Your task to perform on an android device: uninstall "Truecaller" Image 0: 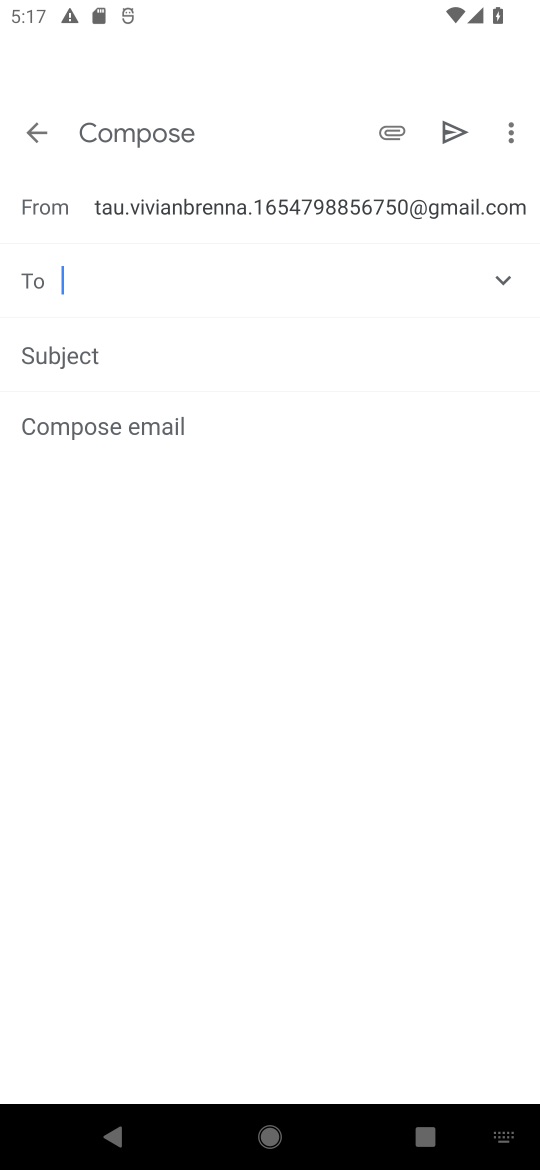
Step 0: press home button
Your task to perform on an android device: uninstall "Truecaller" Image 1: 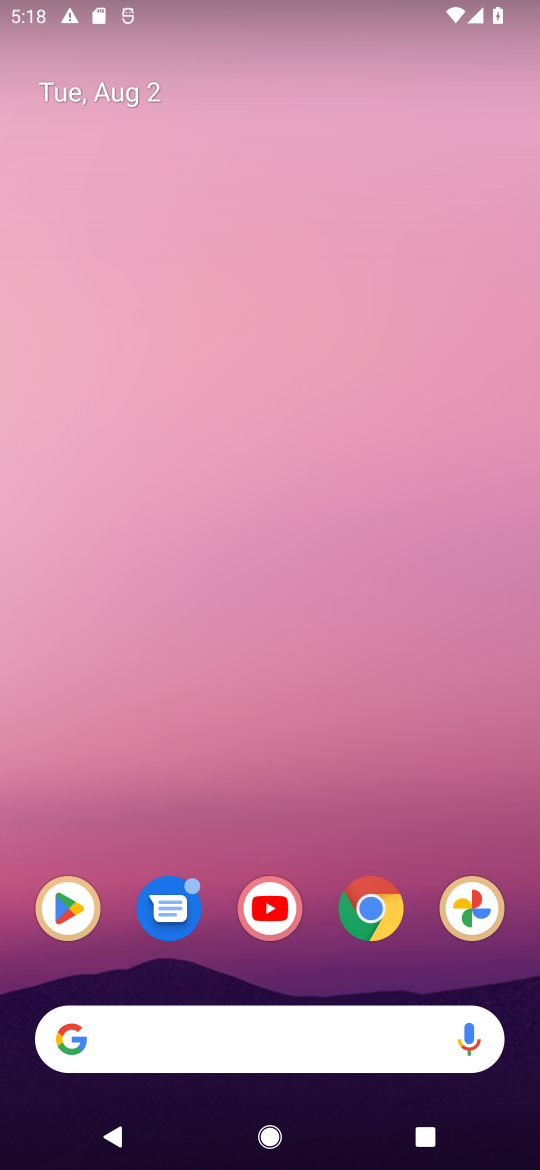
Step 1: click (62, 897)
Your task to perform on an android device: uninstall "Truecaller" Image 2: 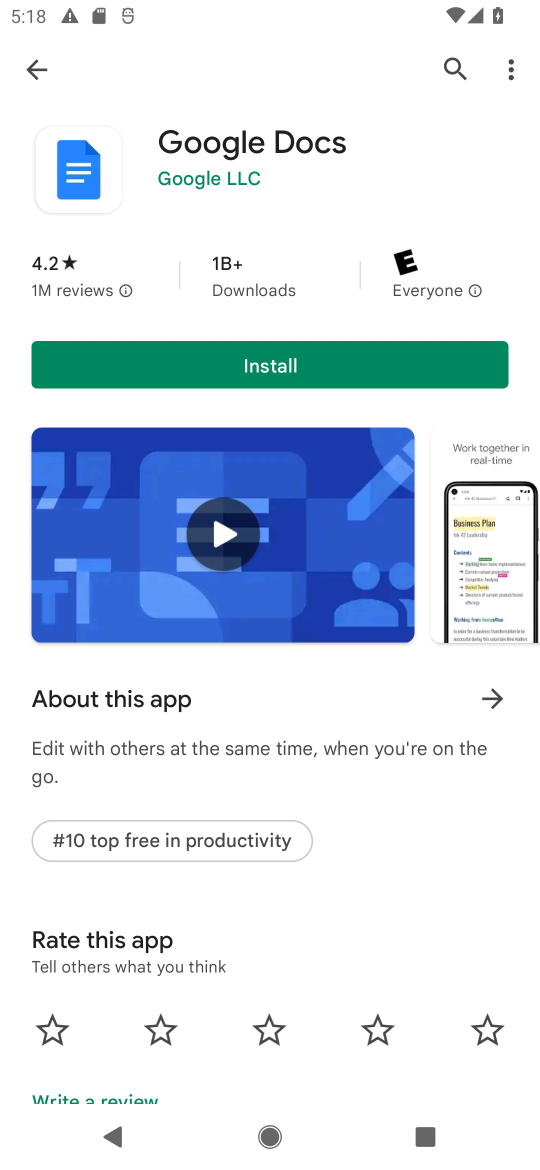
Step 2: click (38, 70)
Your task to perform on an android device: uninstall "Truecaller" Image 3: 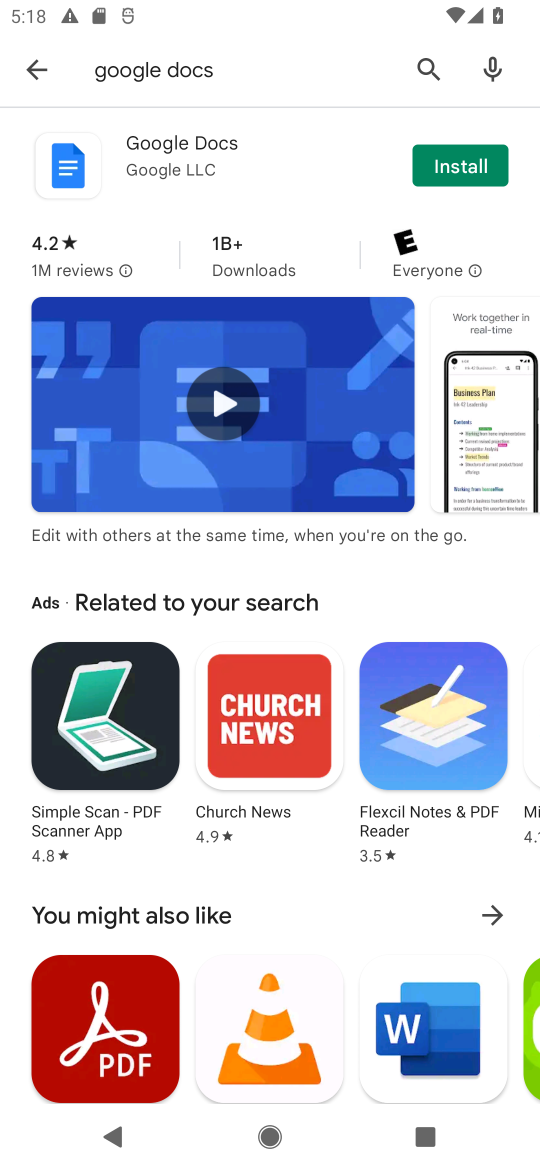
Step 3: click (421, 58)
Your task to perform on an android device: uninstall "Truecaller" Image 4: 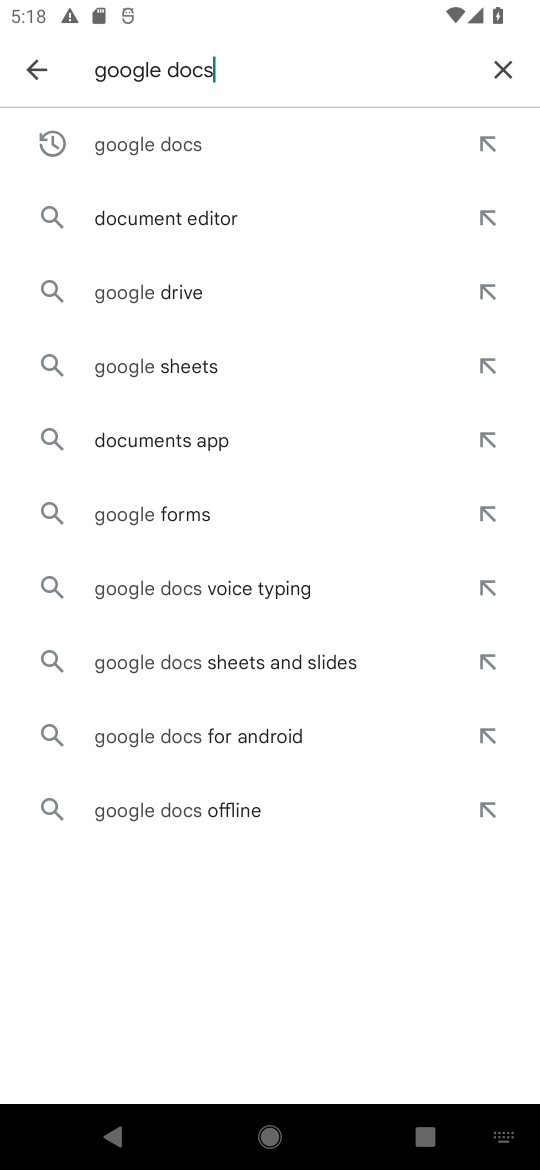
Step 4: click (500, 67)
Your task to perform on an android device: uninstall "Truecaller" Image 5: 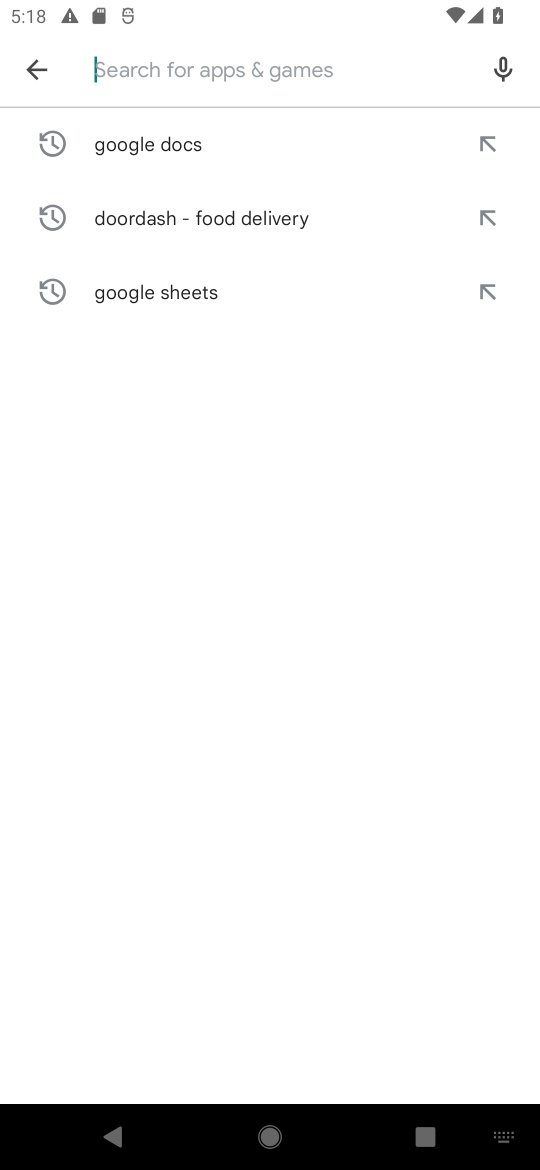
Step 5: type "Truecaller"
Your task to perform on an android device: uninstall "Truecaller" Image 6: 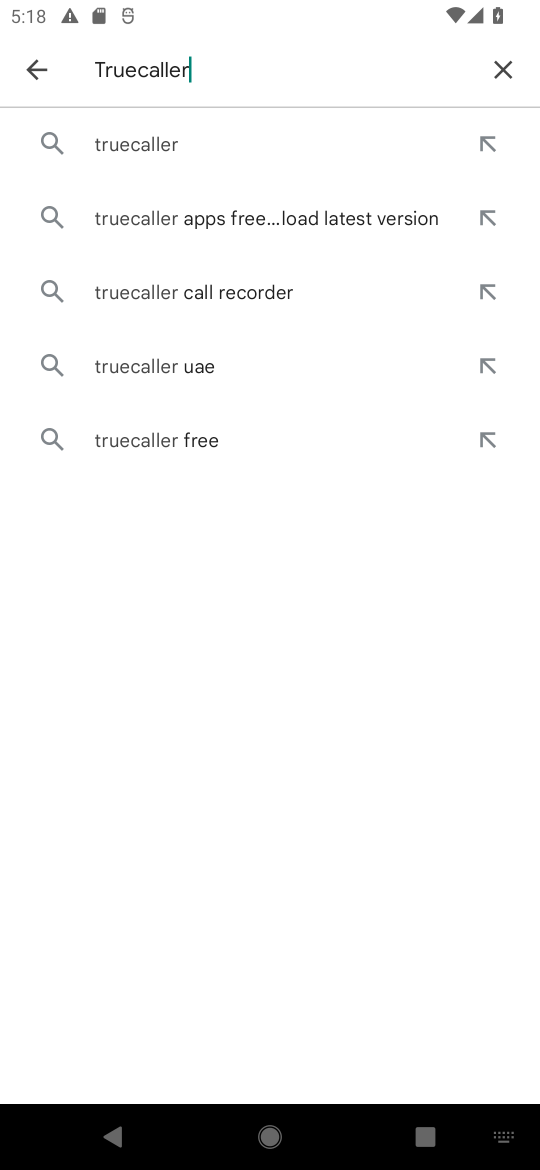
Step 6: click (162, 148)
Your task to perform on an android device: uninstall "Truecaller" Image 7: 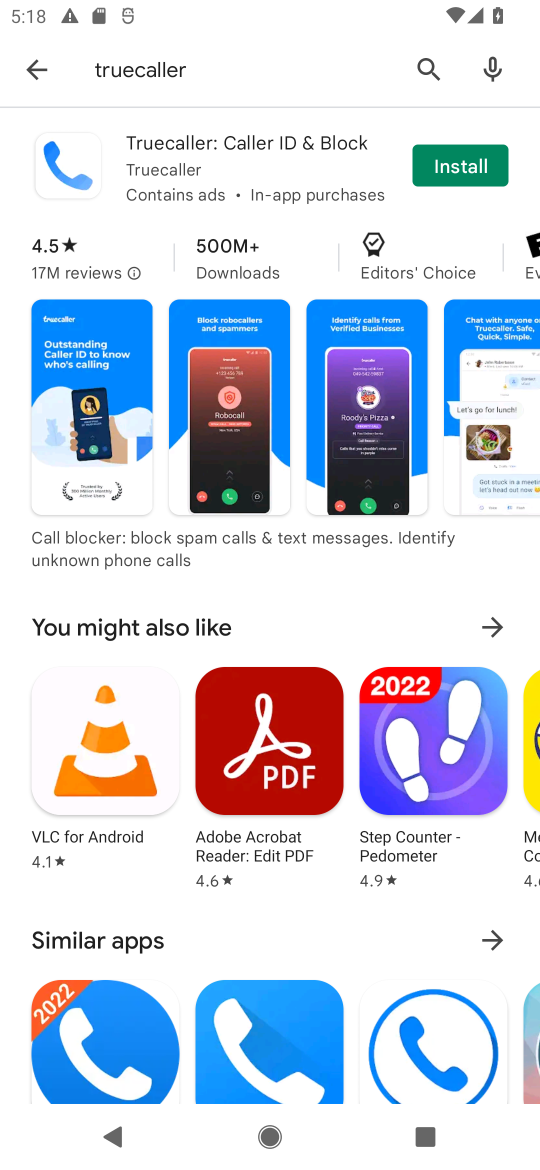
Step 7: click (206, 160)
Your task to perform on an android device: uninstall "Truecaller" Image 8: 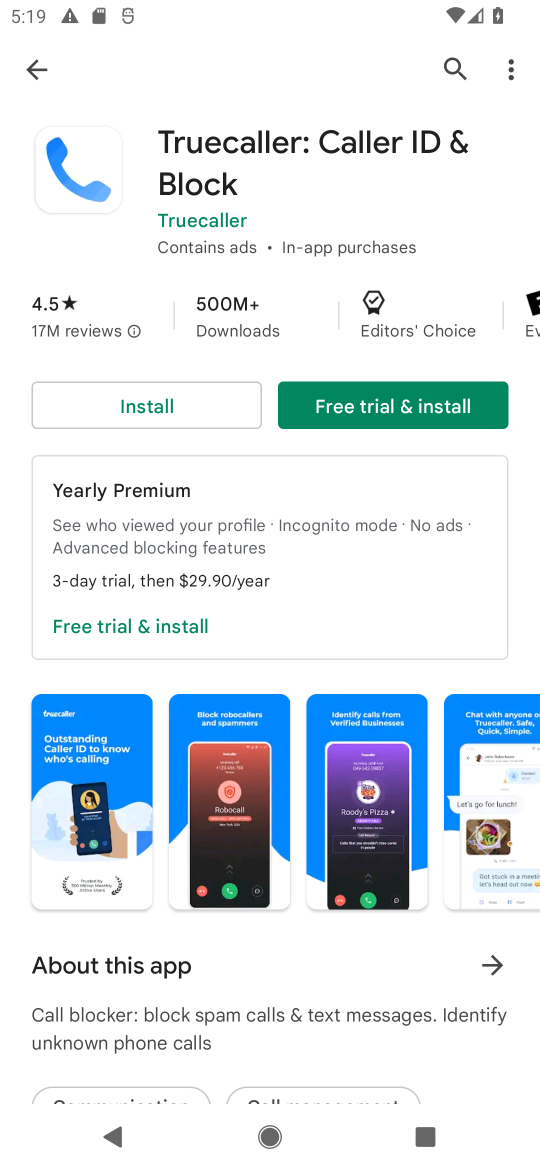
Step 8: task complete